Your task to perform on an android device: turn on bluetooth scan Image 0: 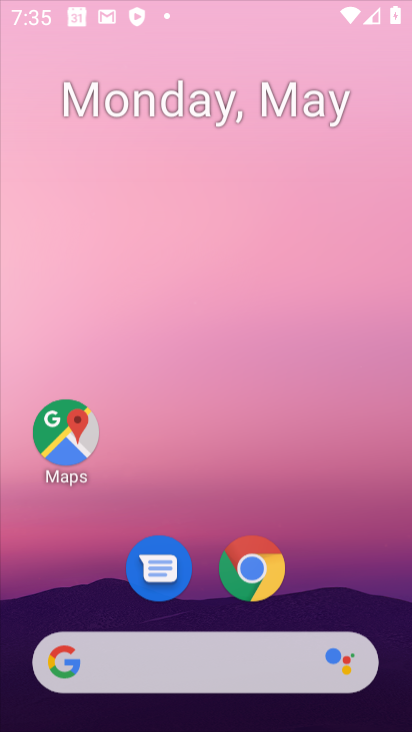
Step 0: click (255, 70)
Your task to perform on an android device: turn on bluetooth scan Image 1: 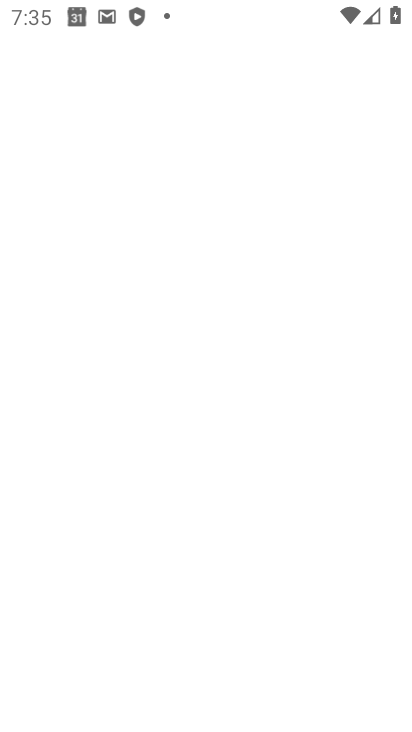
Step 1: press home button
Your task to perform on an android device: turn on bluetooth scan Image 2: 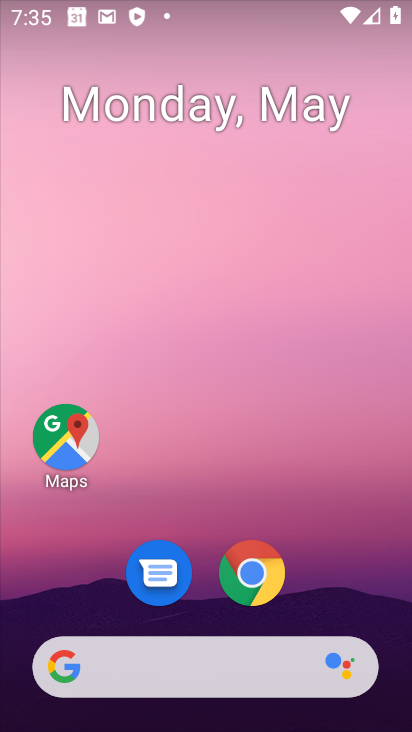
Step 2: drag from (133, 716) to (186, 93)
Your task to perform on an android device: turn on bluetooth scan Image 3: 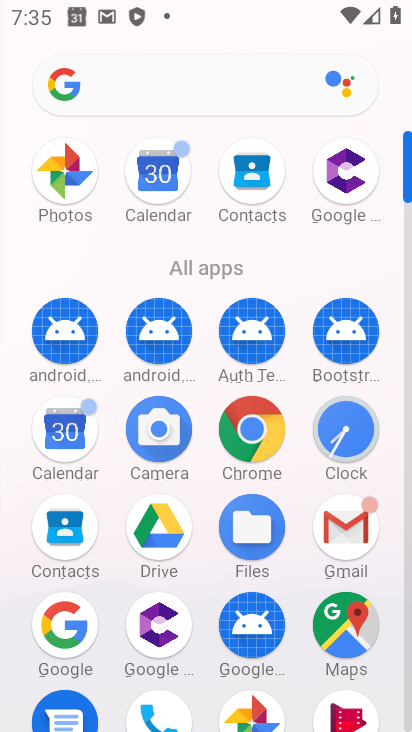
Step 3: drag from (197, 568) to (229, 15)
Your task to perform on an android device: turn on bluetooth scan Image 4: 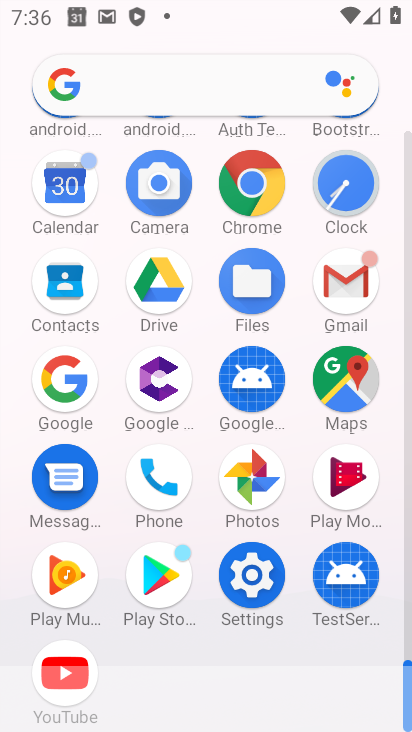
Step 4: click (249, 575)
Your task to perform on an android device: turn on bluetooth scan Image 5: 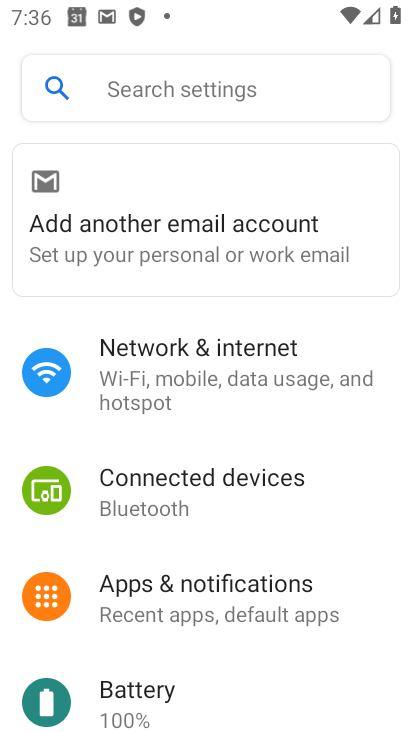
Step 5: click (156, 491)
Your task to perform on an android device: turn on bluetooth scan Image 6: 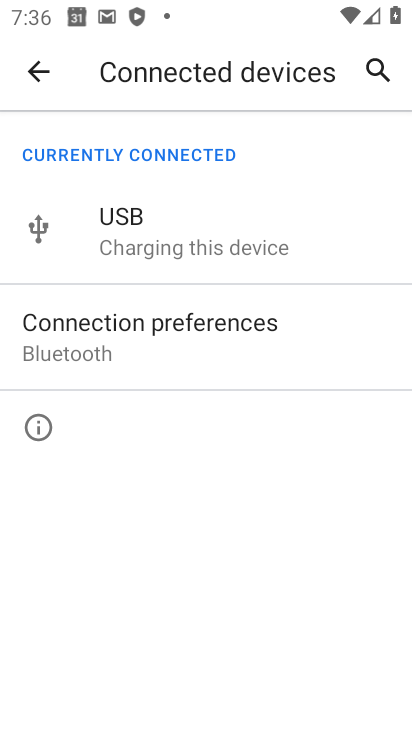
Step 6: click (226, 318)
Your task to perform on an android device: turn on bluetooth scan Image 7: 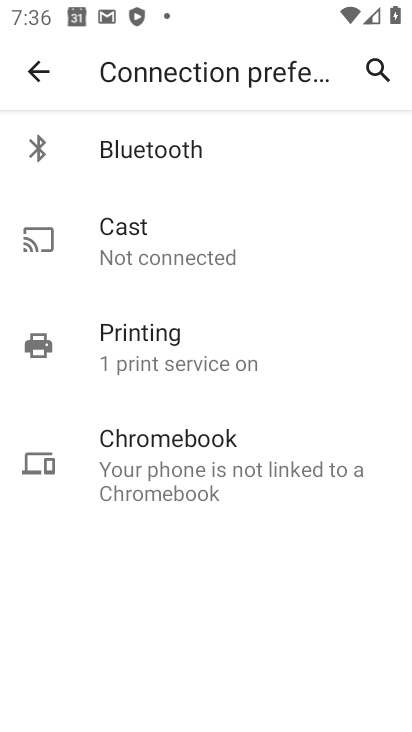
Step 7: click (172, 170)
Your task to perform on an android device: turn on bluetooth scan Image 8: 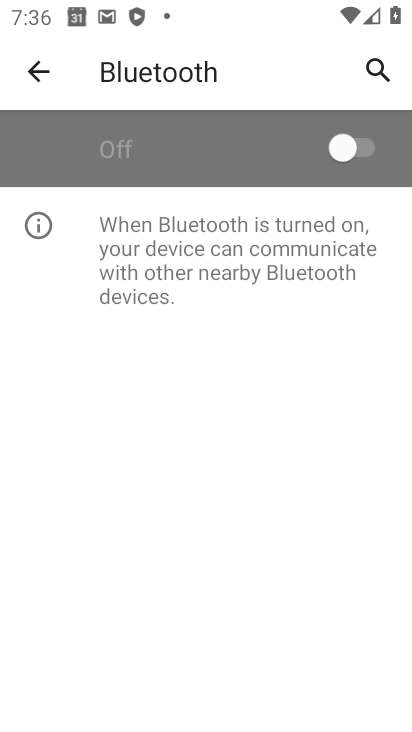
Step 8: click (369, 154)
Your task to perform on an android device: turn on bluetooth scan Image 9: 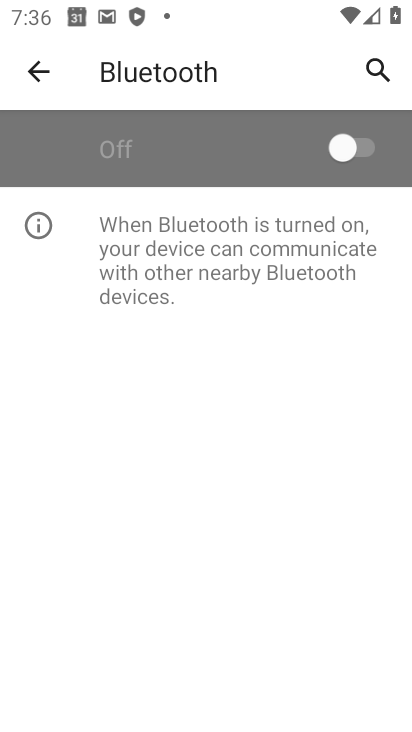
Step 9: task complete